Your task to perform on an android device: change text size in settings app Image 0: 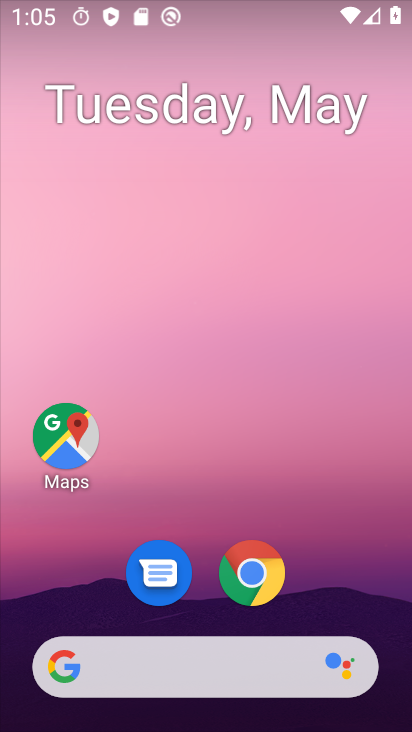
Step 0: drag from (347, 573) to (266, 85)
Your task to perform on an android device: change text size in settings app Image 1: 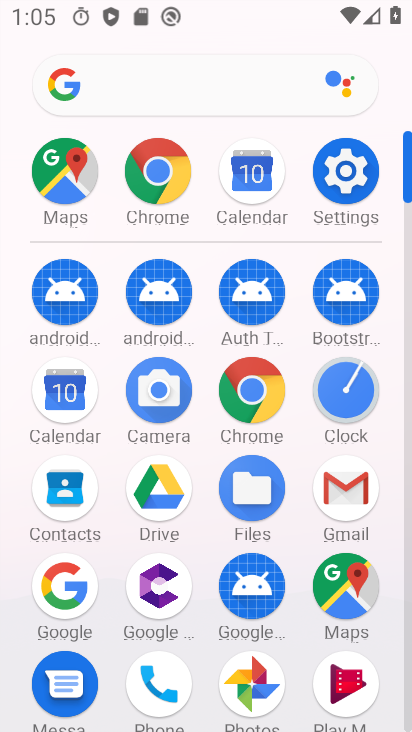
Step 1: click (339, 182)
Your task to perform on an android device: change text size in settings app Image 2: 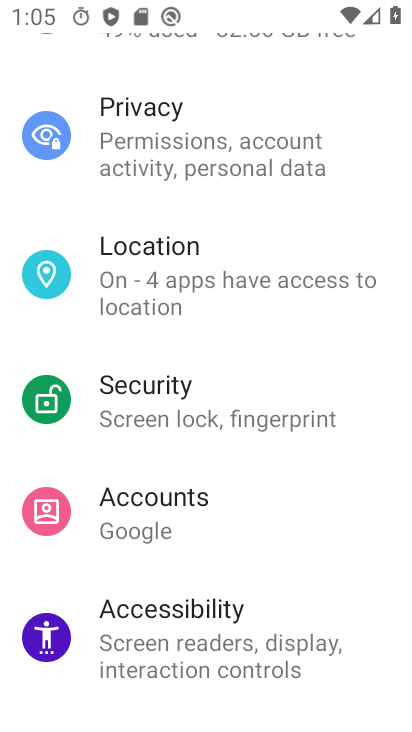
Step 2: drag from (324, 237) to (292, 589)
Your task to perform on an android device: change text size in settings app Image 3: 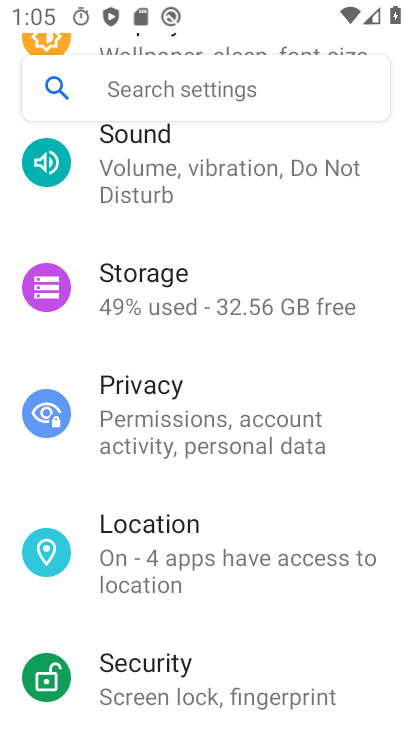
Step 3: drag from (249, 263) to (280, 630)
Your task to perform on an android device: change text size in settings app Image 4: 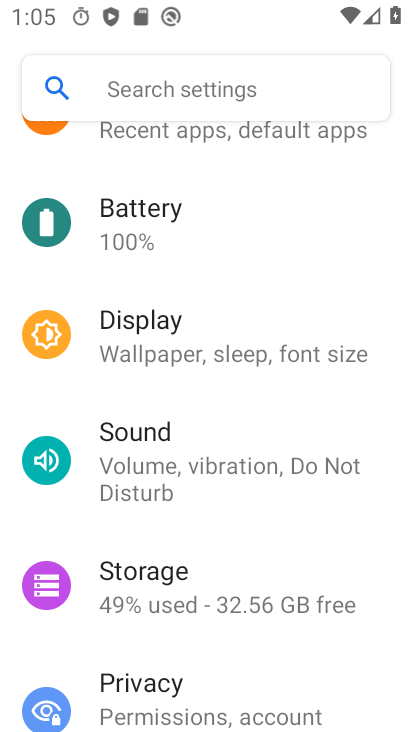
Step 4: click (240, 340)
Your task to perform on an android device: change text size in settings app Image 5: 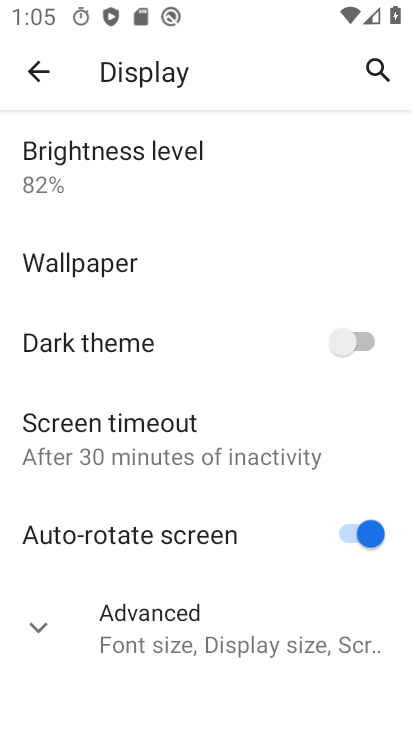
Step 5: drag from (205, 621) to (151, 285)
Your task to perform on an android device: change text size in settings app Image 6: 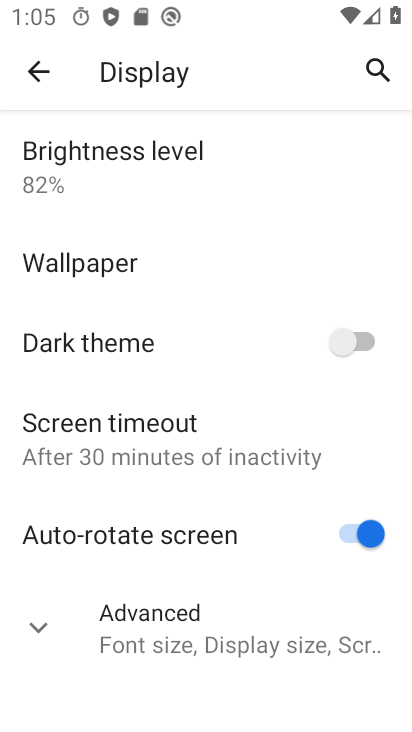
Step 6: click (179, 647)
Your task to perform on an android device: change text size in settings app Image 7: 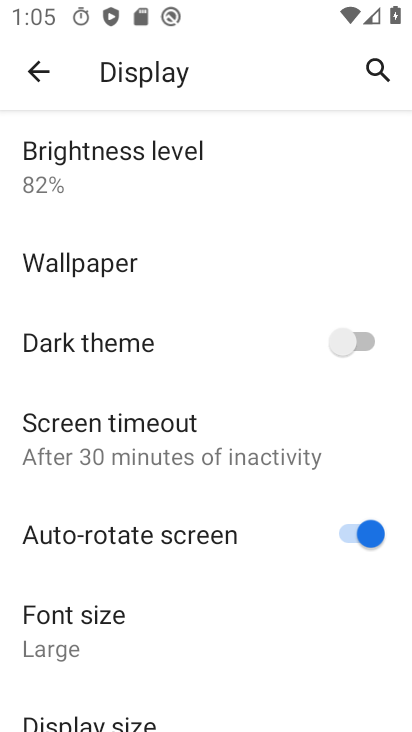
Step 7: click (92, 634)
Your task to perform on an android device: change text size in settings app Image 8: 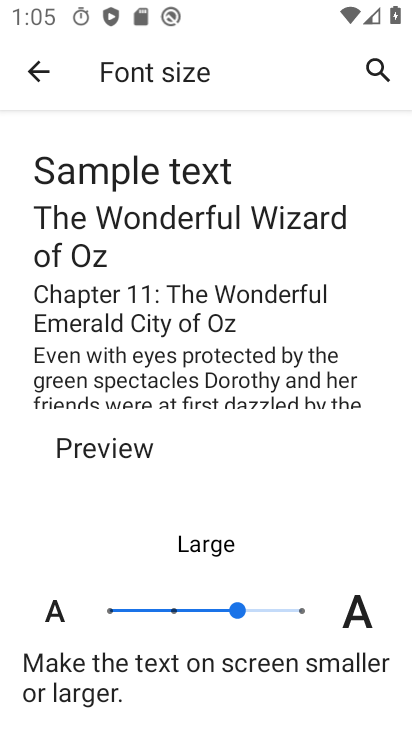
Step 8: click (195, 615)
Your task to perform on an android device: change text size in settings app Image 9: 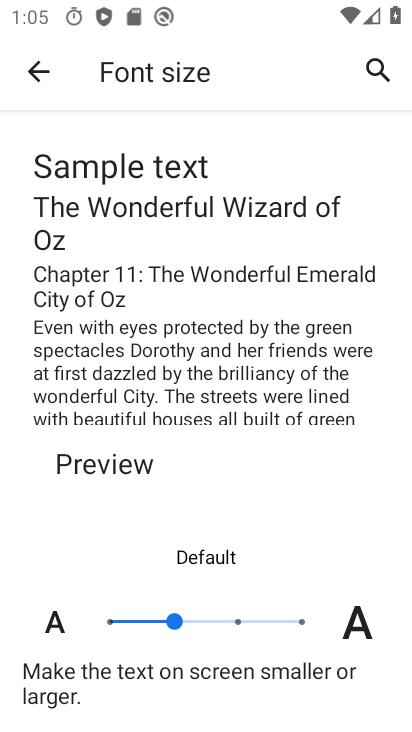
Step 9: task complete